Your task to perform on an android device: Open the map Image 0: 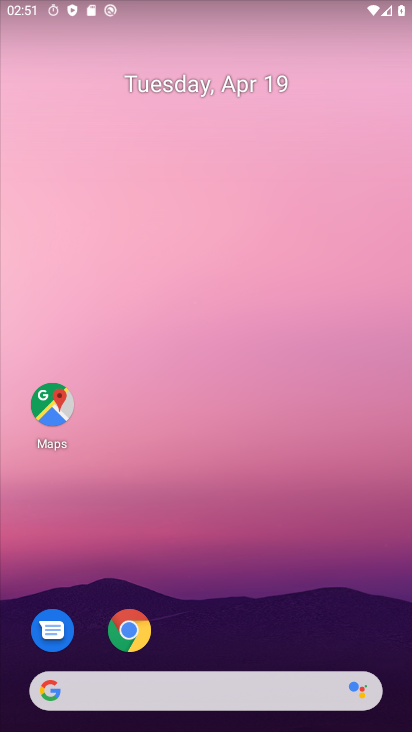
Step 0: click (52, 399)
Your task to perform on an android device: Open the map Image 1: 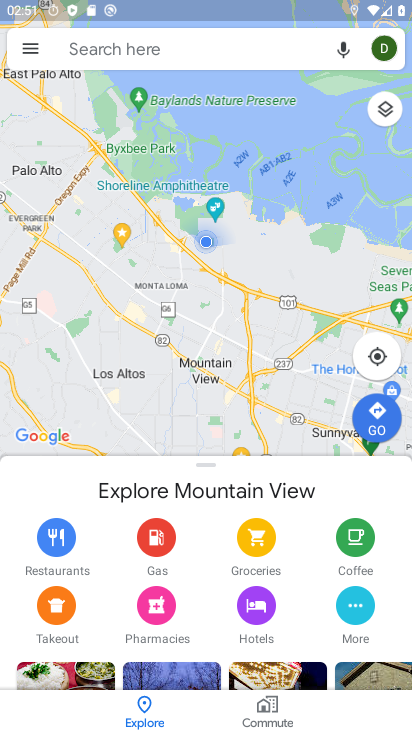
Step 1: task complete